Your task to perform on an android device: change the clock style Image 0: 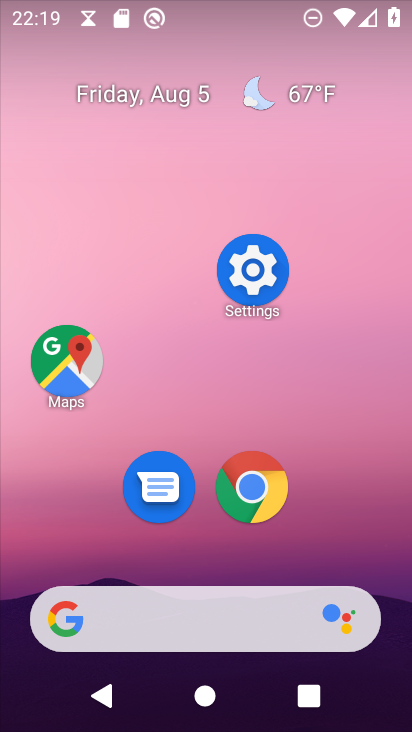
Step 0: drag from (271, 254) to (269, 64)
Your task to perform on an android device: change the clock style Image 1: 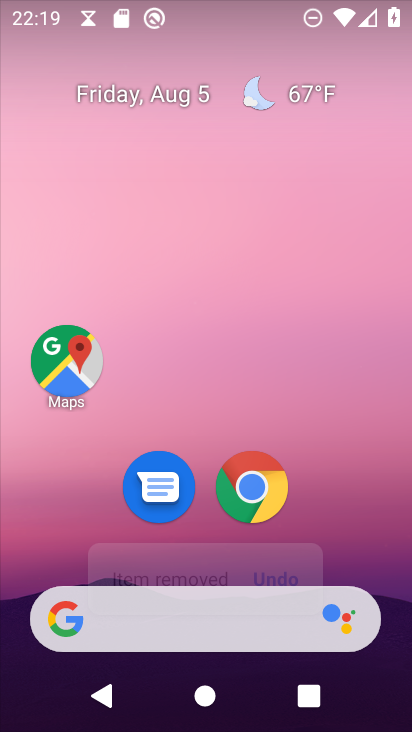
Step 1: click (349, 395)
Your task to perform on an android device: change the clock style Image 2: 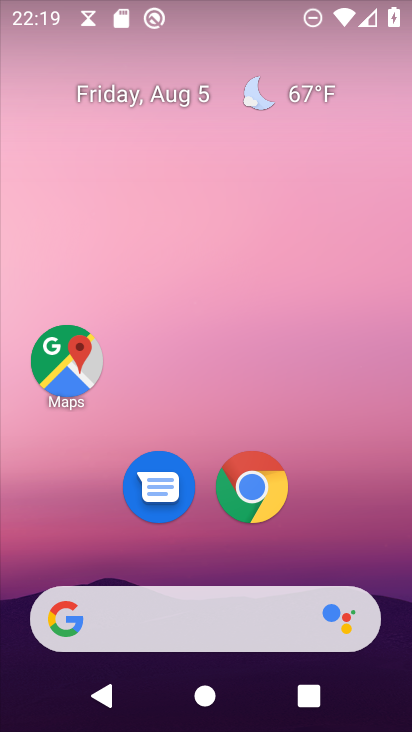
Step 2: drag from (198, 612) to (318, 57)
Your task to perform on an android device: change the clock style Image 3: 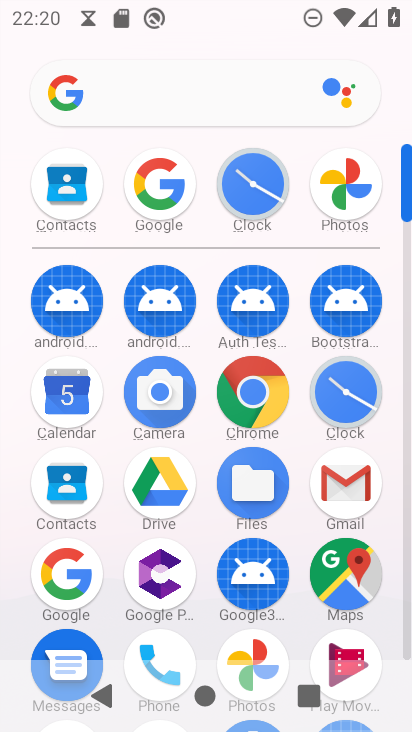
Step 3: drag from (294, 223) to (317, 148)
Your task to perform on an android device: change the clock style Image 4: 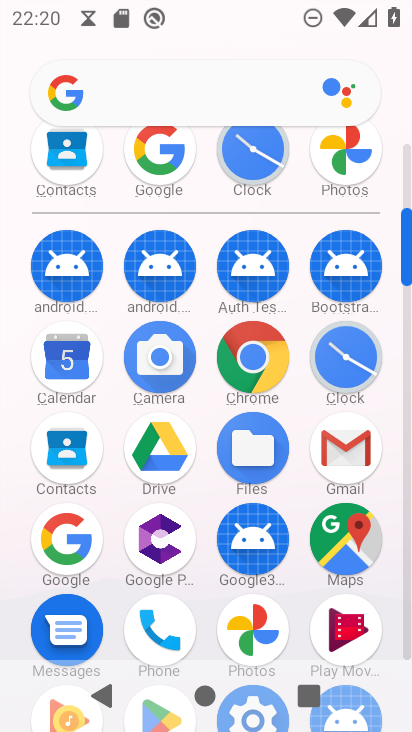
Step 4: click (244, 149)
Your task to perform on an android device: change the clock style Image 5: 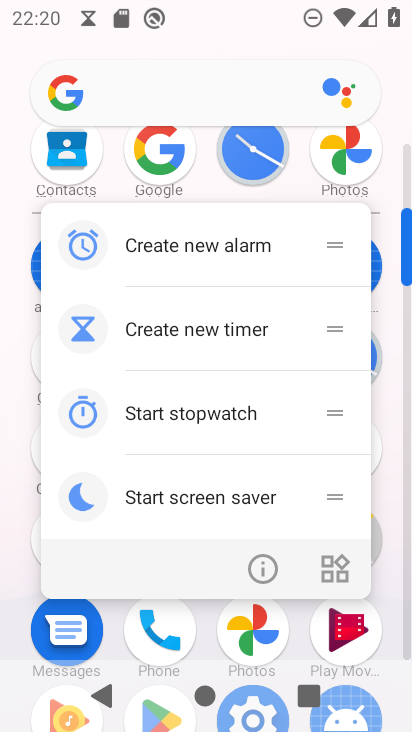
Step 5: click (244, 149)
Your task to perform on an android device: change the clock style Image 6: 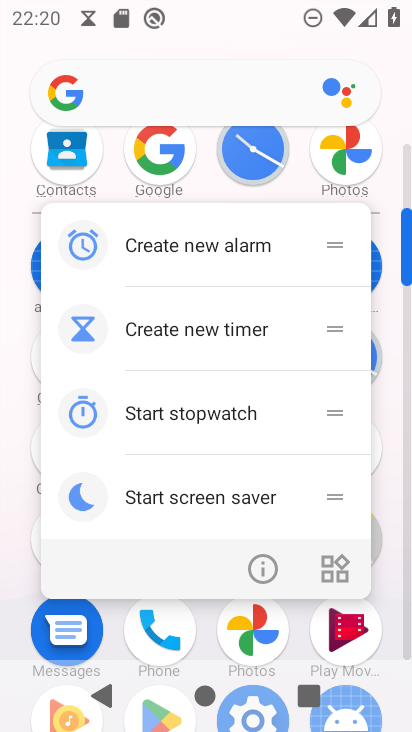
Step 6: click (252, 146)
Your task to perform on an android device: change the clock style Image 7: 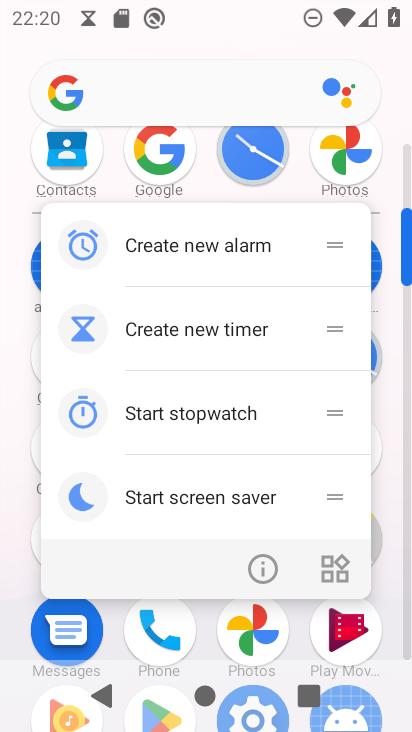
Step 7: click (252, 150)
Your task to perform on an android device: change the clock style Image 8: 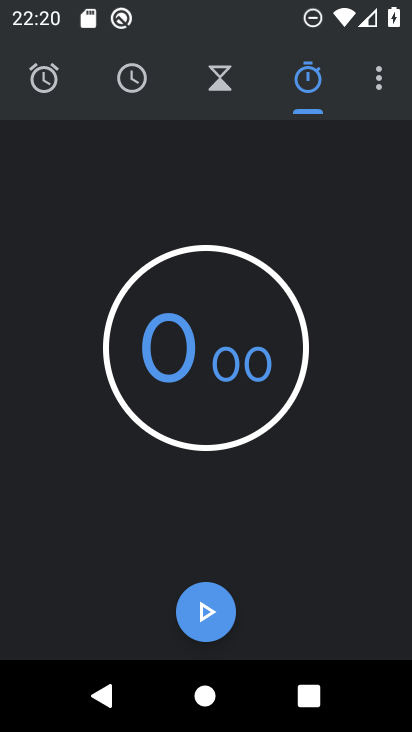
Step 8: click (379, 74)
Your task to perform on an android device: change the clock style Image 9: 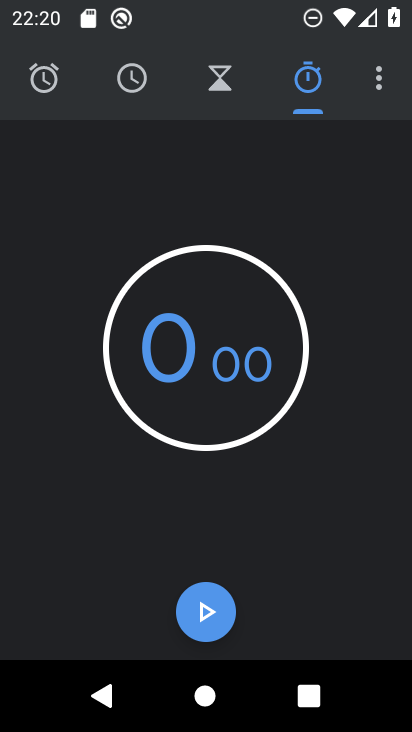
Step 9: click (382, 89)
Your task to perform on an android device: change the clock style Image 10: 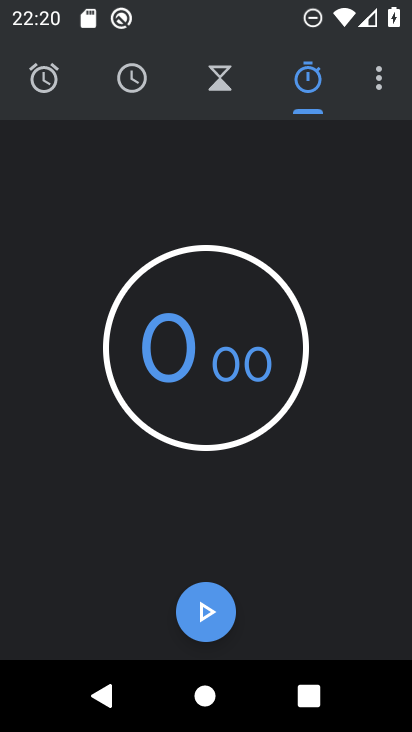
Step 10: click (379, 78)
Your task to perform on an android device: change the clock style Image 11: 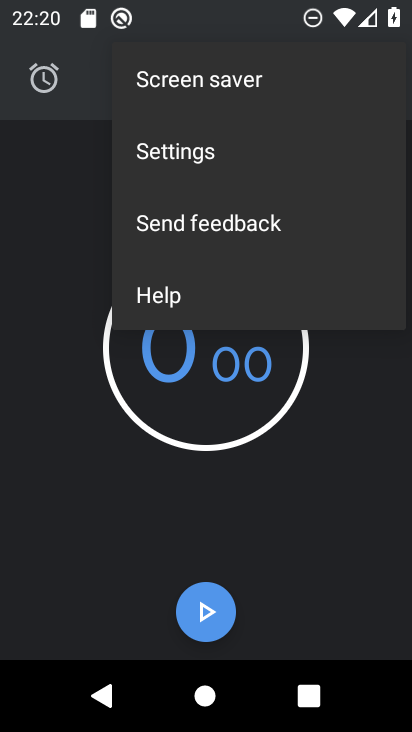
Step 11: click (216, 150)
Your task to perform on an android device: change the clock style Image 12: 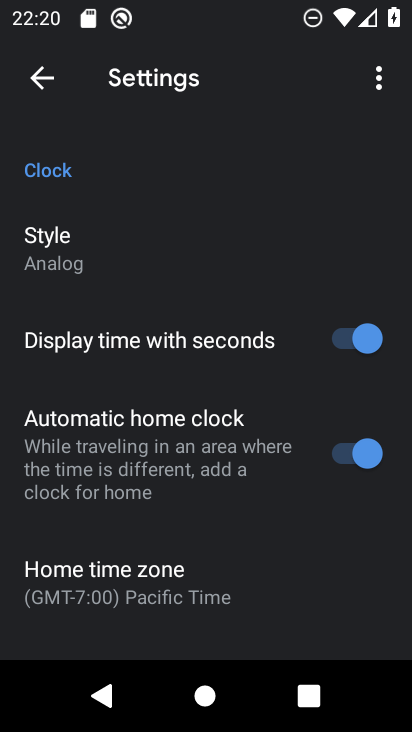
Step 12: click (71, 264)
Your task to perform on an android device: change the clock style Image 13: 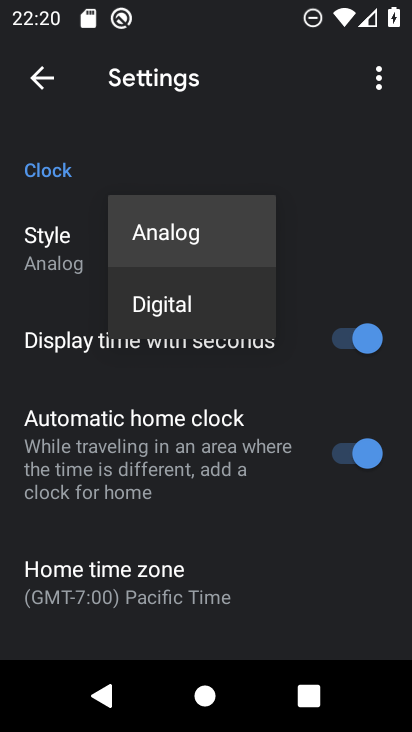
Step 13: click (149, 297)
Your task to perform on an android device: change the clock style Image 14: 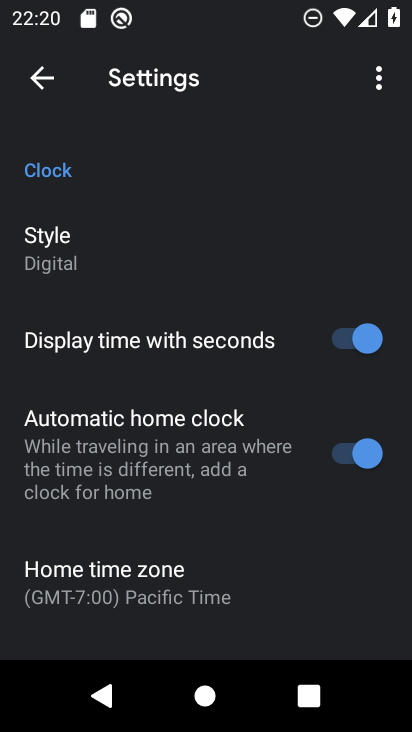
Step 14: task complete